Your task to perform on an android device: add a contact in the contacts app Image 0: 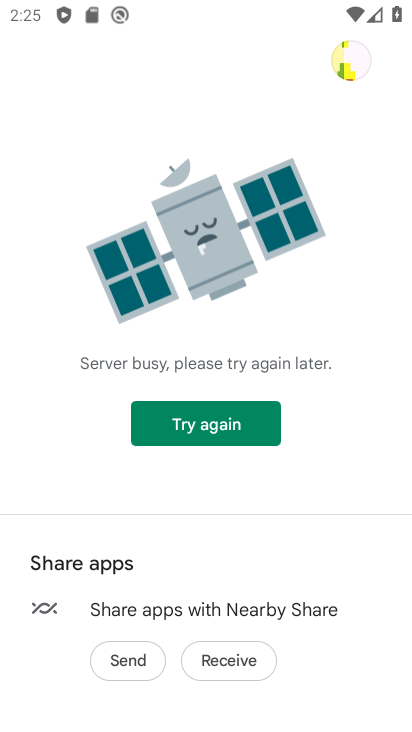
Step 0: press home button
Your task to perform on an android device: add a contact in the contacts app Image 1: 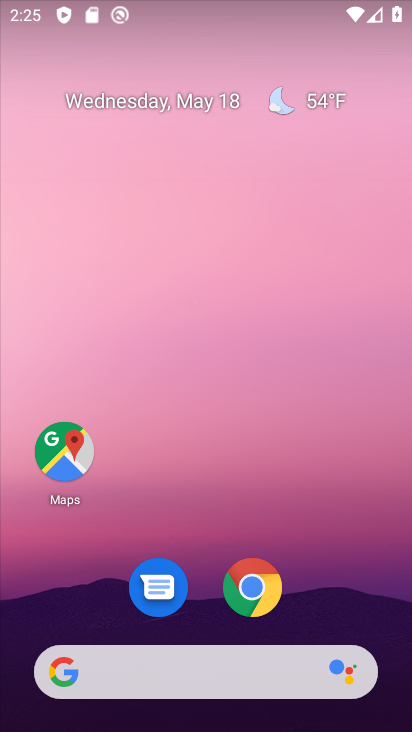
Step 1: drag from (323, 577) to (308, 147)
Your task to perform on an android device: add a contact in the contacts app Image 2: 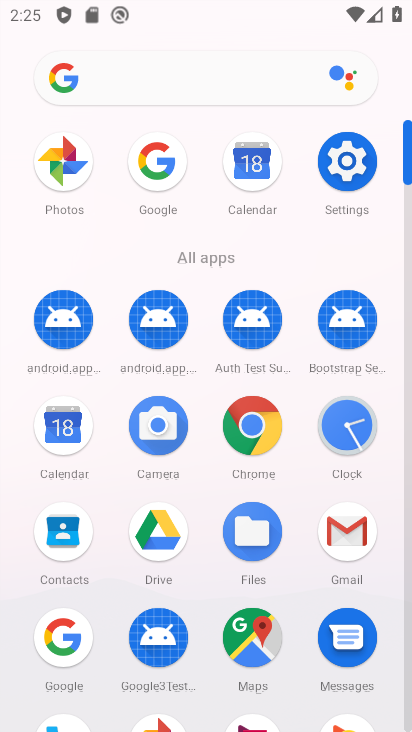
Step 2: click (62, 543)
Your task to perform on an android device: add a contact in the contacts app Image 3: 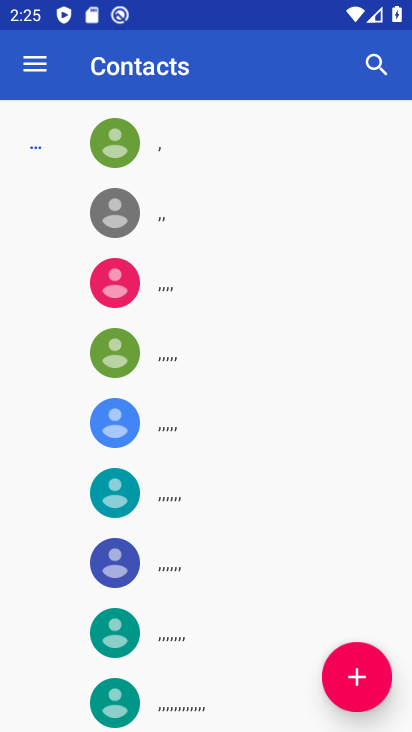
Step 3: click (351, 656)
Your task to perform on an android device: add a contact in the contacts app Image 4: 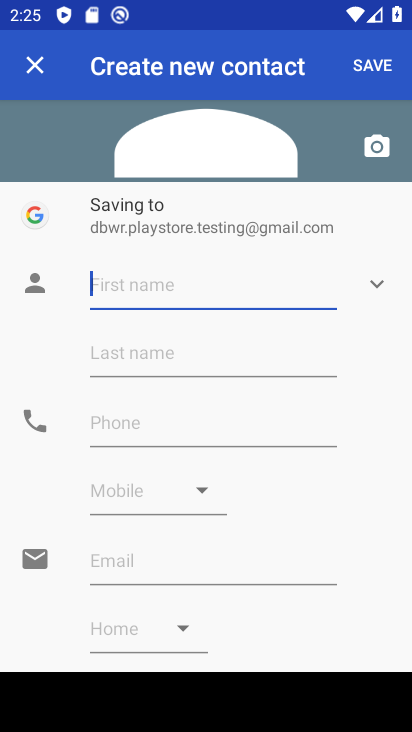
Step 4: type "4yeryy"
Your task to perform on an android device: add a contact in the contacts app Image 5: 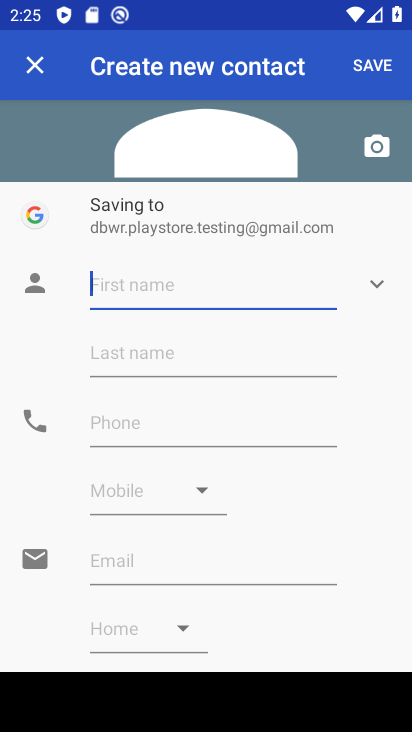
Step 5: click (212, 426)
Your task to perform on an android device: add a contact in the contacts app Image 6: 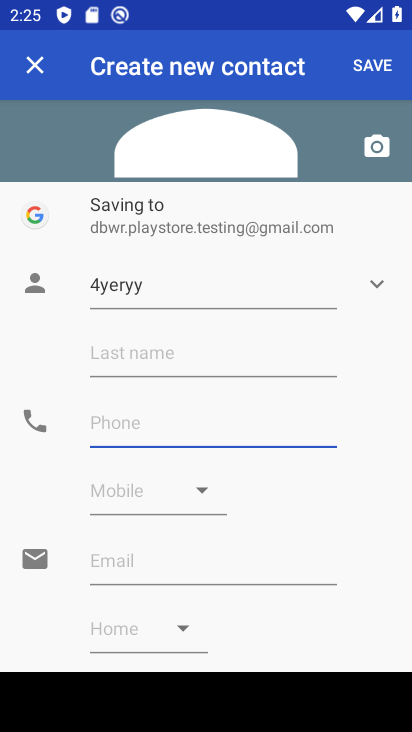
Step 6: type "4321445678"
Your task to perform on an android device: add a contact in the contacts app Image 7: 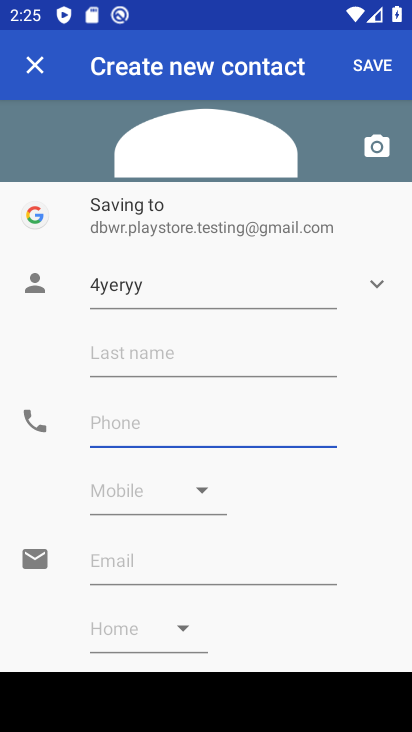
Step 7: click (366, 79)
Your task to perform on an android device: add a contact in the contacts app Image 8: 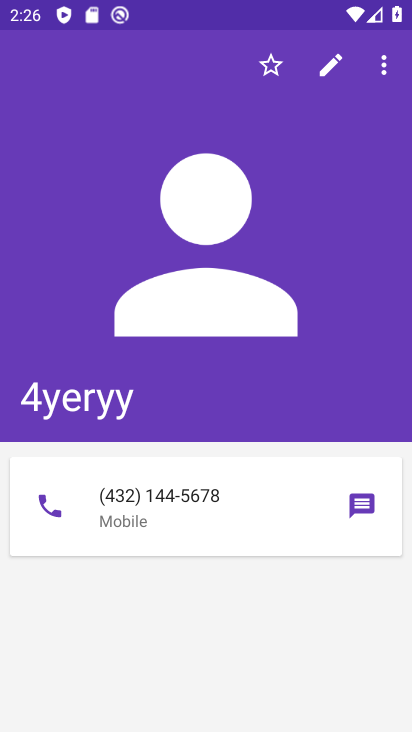
Step 8: task complete